Your task to perform on an android device: change the clock style Image 0: 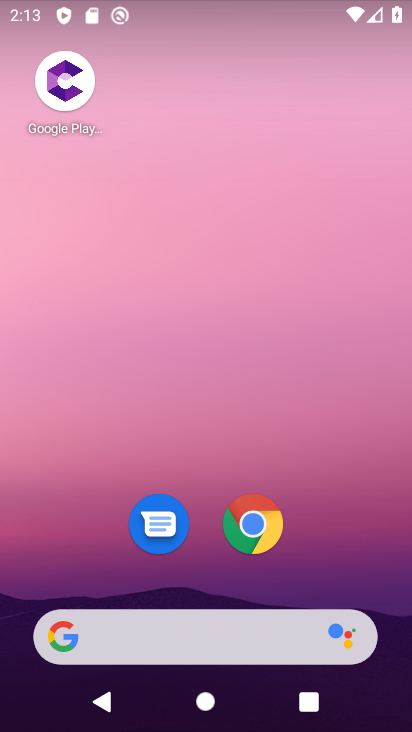
Step 0: drag from (312, 529) to (342, 34)
Your task to perform on an android device: change the clock style Image 1: 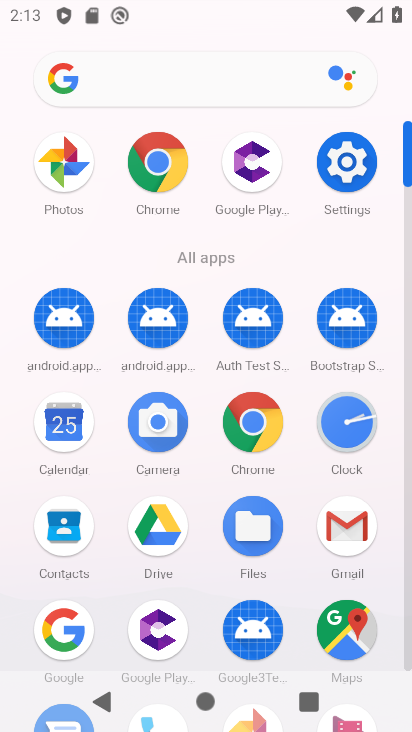
Step 1: click (338, 417)
Your task to perform on an android device: change the clock style Image 2: 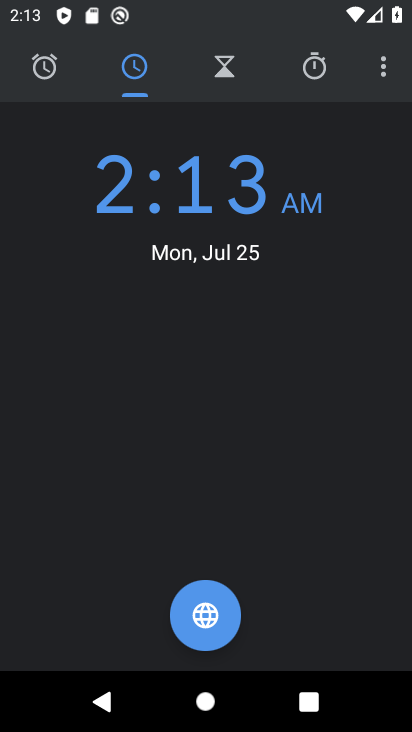
Step 2: click (386, 79)
Your task to perform on an android device: change the clock style Image 3: 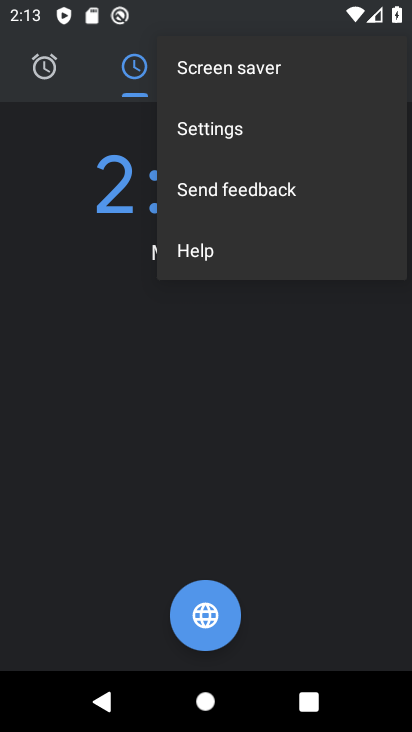
Step 3: click (260, 130)
Your task to perform on an android device: change the clock style Image 4: 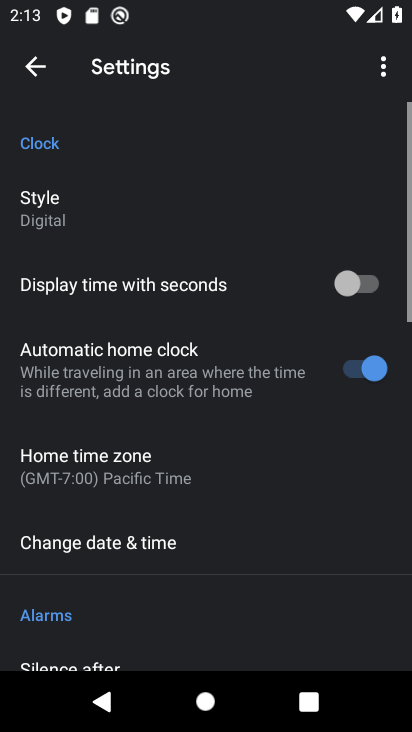
Step 4: click (60, 220)
Your task to perform on an android device: change the clock style Image 5: 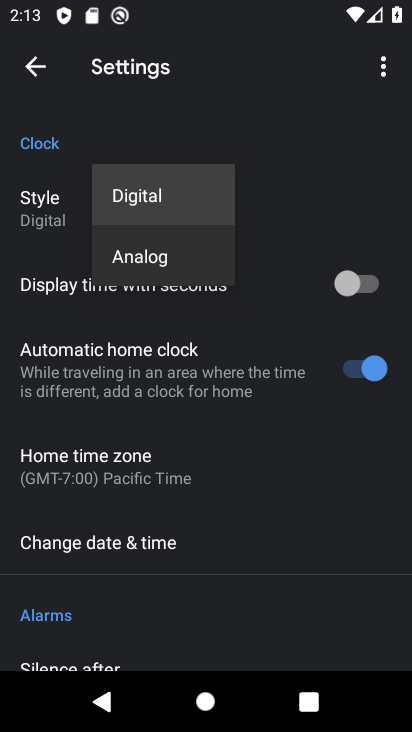
Step 5: click (121, 252)
Your task to perform on an android device: change the clock style Image 6: 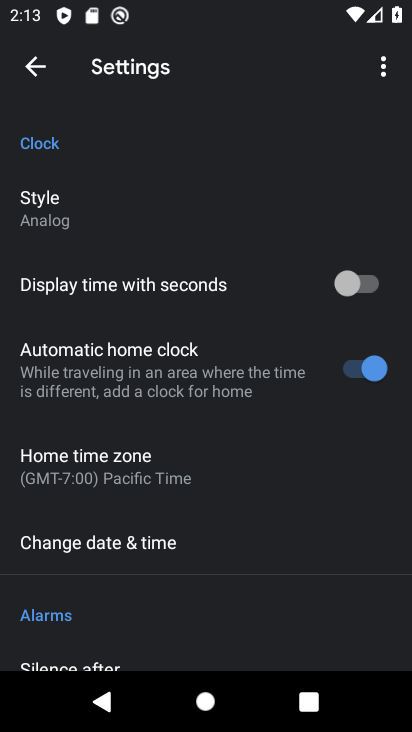
Step 6: click (40, 58)
Your task to perform on an android device: change the clock style Image 7: 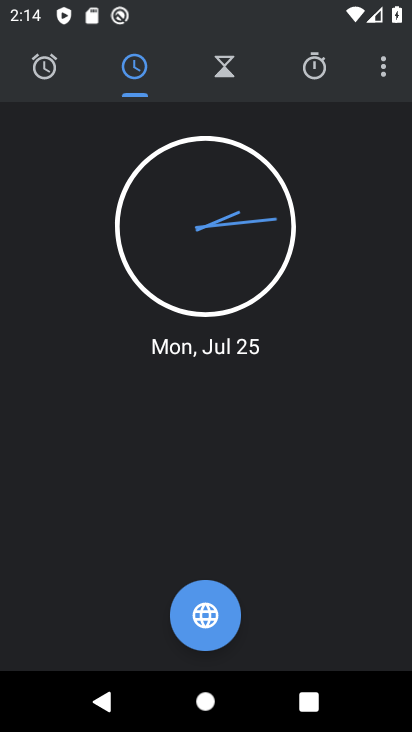
Step 7: task complete